Your task to perform on an android device: turn off wifi Image 0: 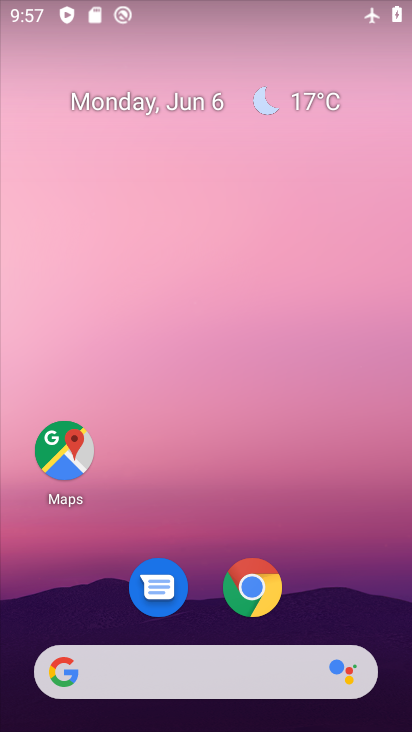
Step 0: drag from (357, 604) to (302, 157)
Your task to perform on an android device: turn off wifi Image 1: 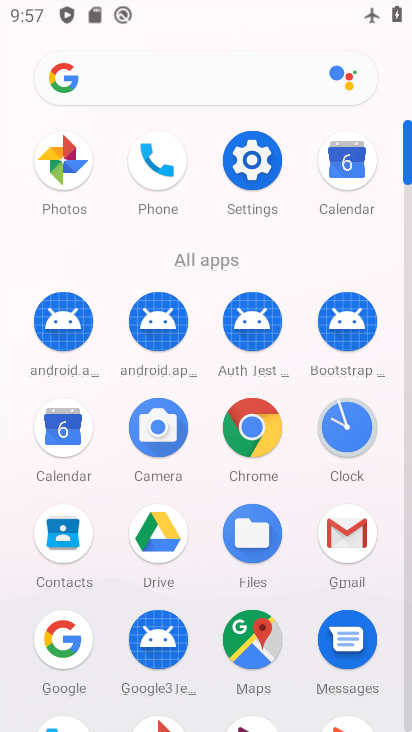
Step 1: click (267, 185)
Your task to perform on an android device: turn off wifi Image 2: 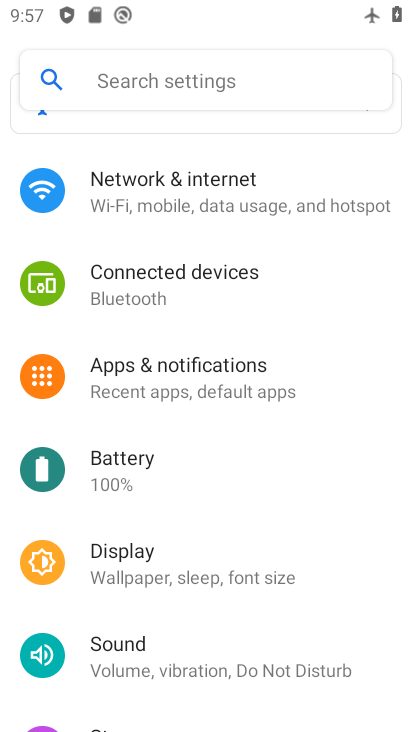
Step 2: click (267, 185)
Your task to perform on an android device: turn off wifi Image 3: 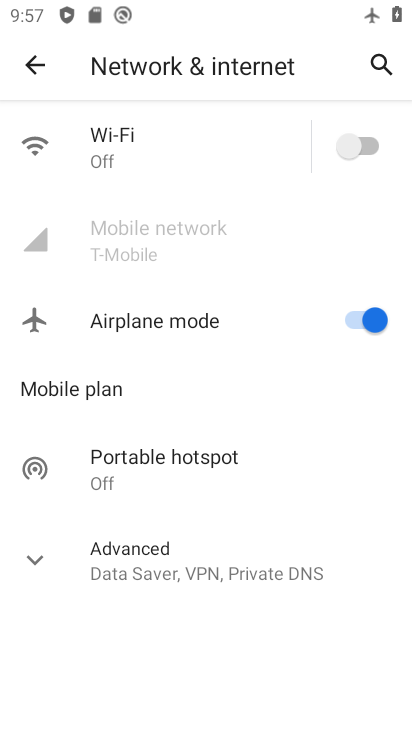
Step 3: task complete